Your task to perform on an android device: Turn off the flashlight Image 0: 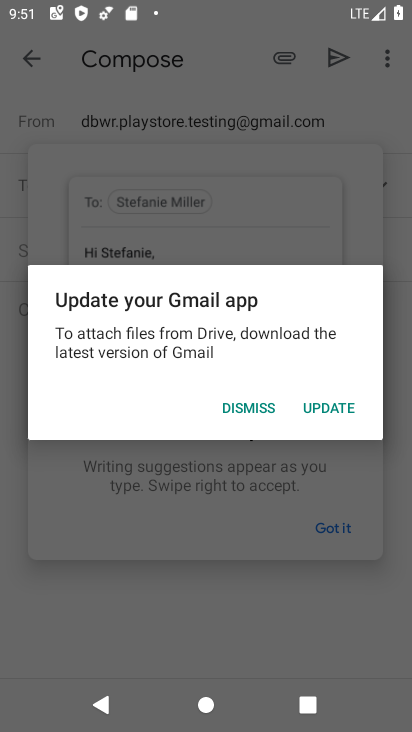
Step 0: press home button
Your task to perform on an android device: Turn off the flashlight Image 1: 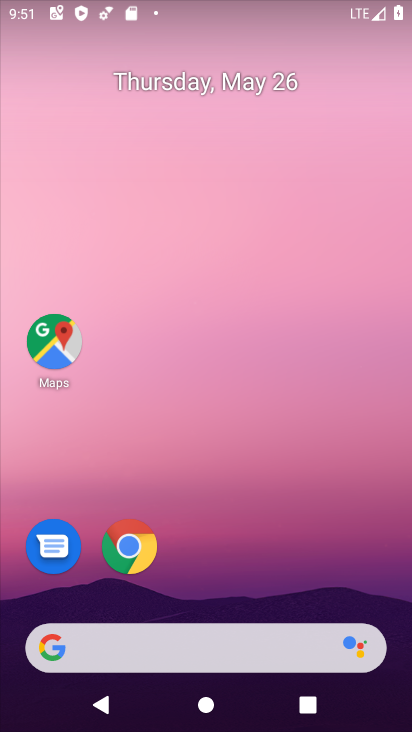
Step 1: drag from (318, 572) to (336, 153)
Your task to perform on an android device: Turn off the flashlight Image 2: 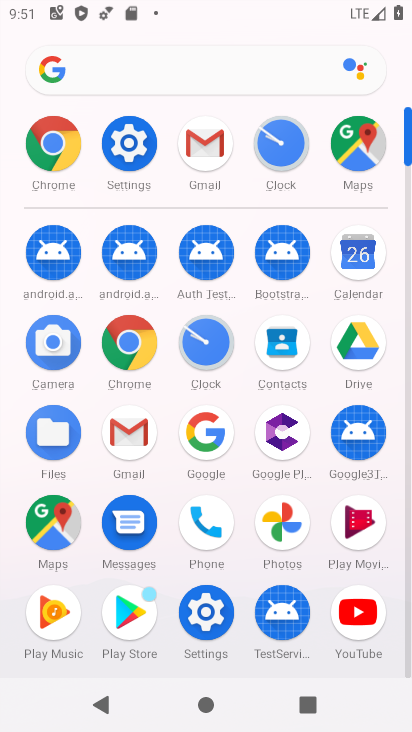
Step 2: click (132, 156)
Your task to perform on an android device: Turn off the flashlight Image 3: 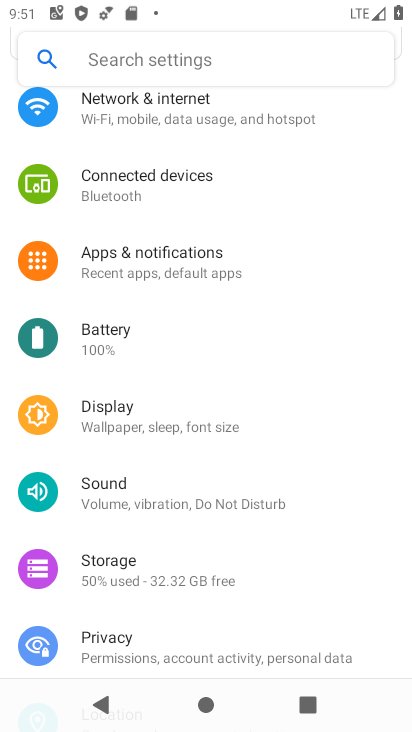
Step 3: click (201, 62)
Your task to perform on an android device: Turn off the flashlight Image 4: 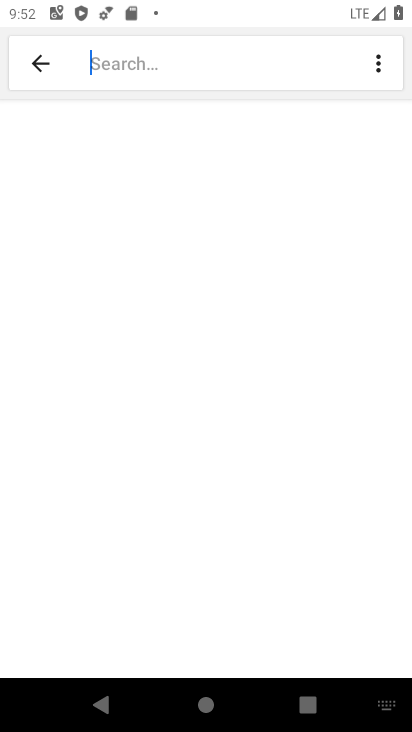
Step 4: type "flashlight"
Your task to perform on an android device: Turn off the flashlight Image 5: 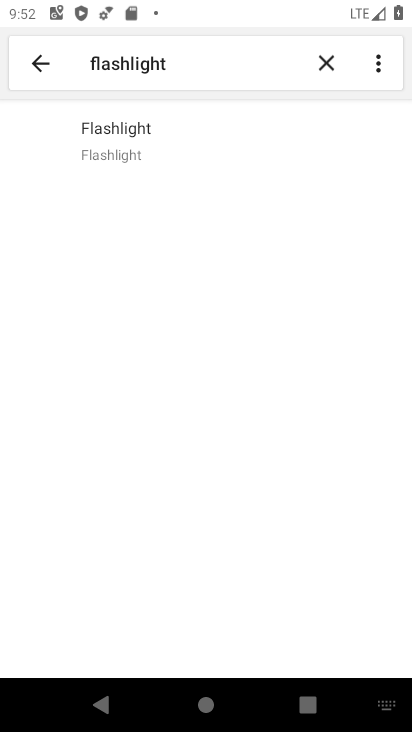
Step 5: click (171, 143)
Your task to perform on an android device: Turn off the flashlight Image 6: 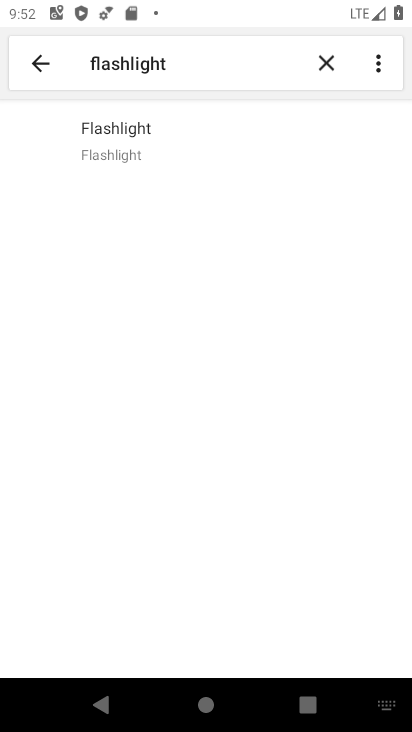
Step 6: task complete